Your task to perform on an android device: turn notification dots on Image 0: 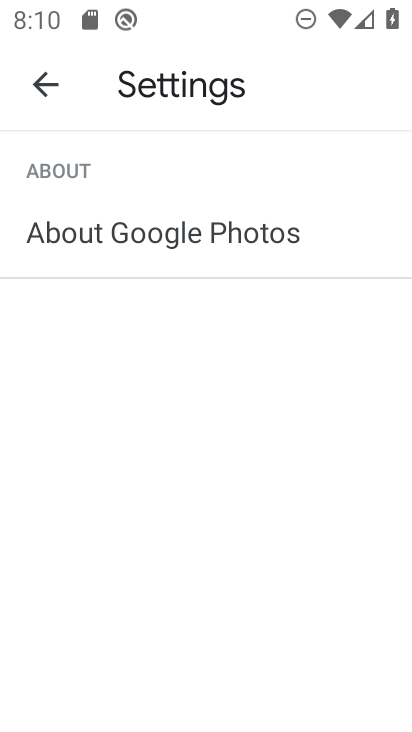
Step 0: press home button
Your task to perform on an android device: turn notification dots on Image 1: 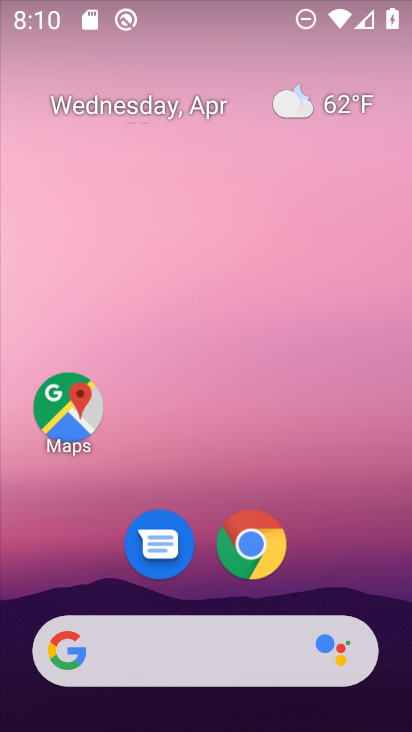
Step 1: drag from (192, 592) to (204, 237)
Your task to perform on an android device: turn notification dots on Image 2: 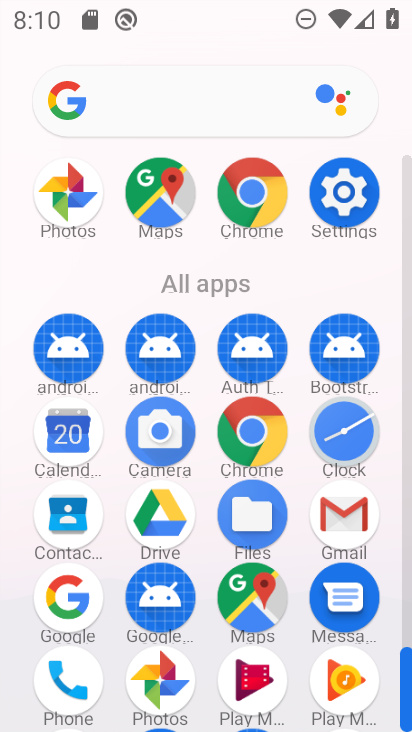
Step 2: click (334, 187)
Your task to perform on an android device: turn notification dots on Image 3: 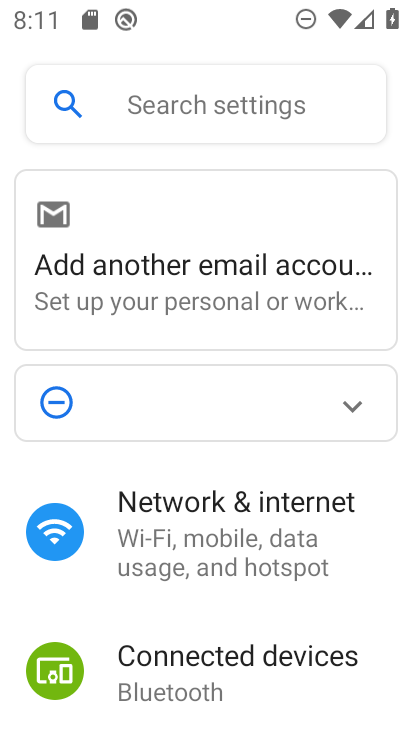
Step 3: drag from (220, 611) to (275, 232)
Your task to perform on an android device: turn notification dots on Image 4: 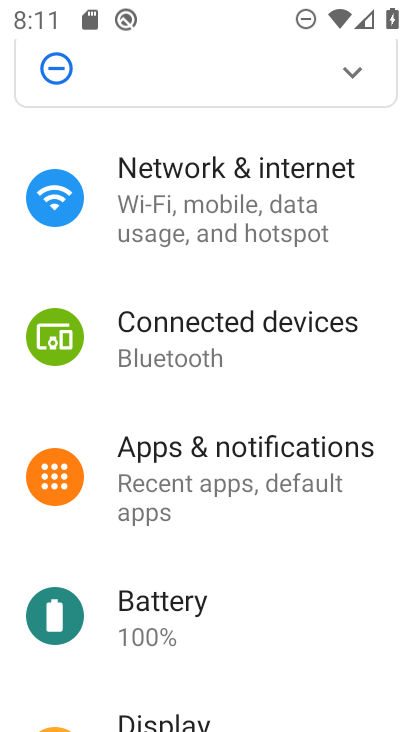
Step 4: click (232, 451)
Your task to perform on an android device: turn notification dots on Image 5: 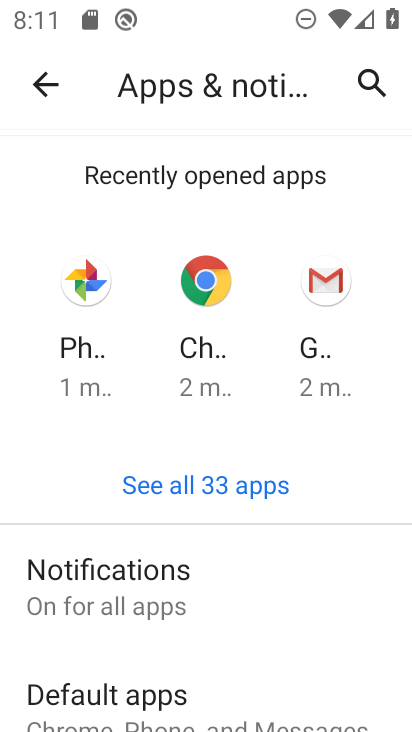
Step 5: drag from (232, 614) to (257, 360)
Your task to perform on an android device: turn notification dots on Image 6: 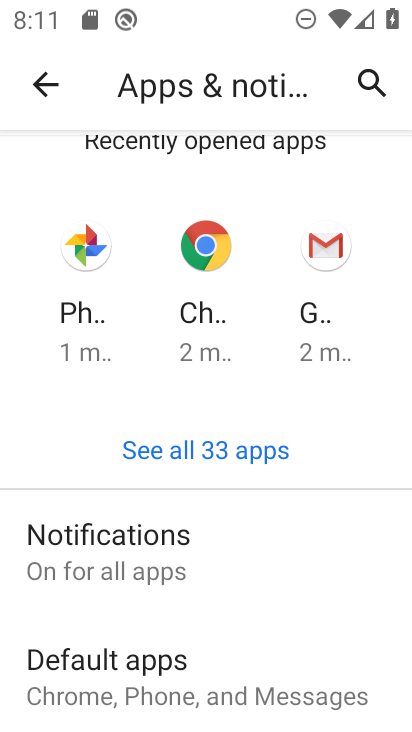
Step 6: drag from (235, 552) to (243, 340)
Your task to perform on an android device: turn notification dots on Image 7: 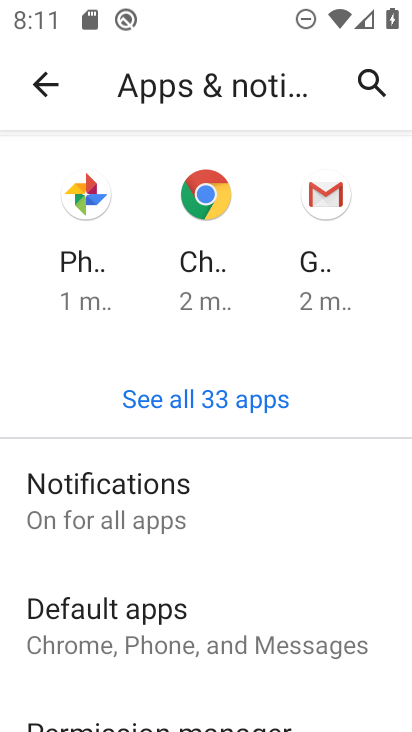
Step 7: click (175, 496)
Your task to perform on an android device: turn notification dots on Image 8: 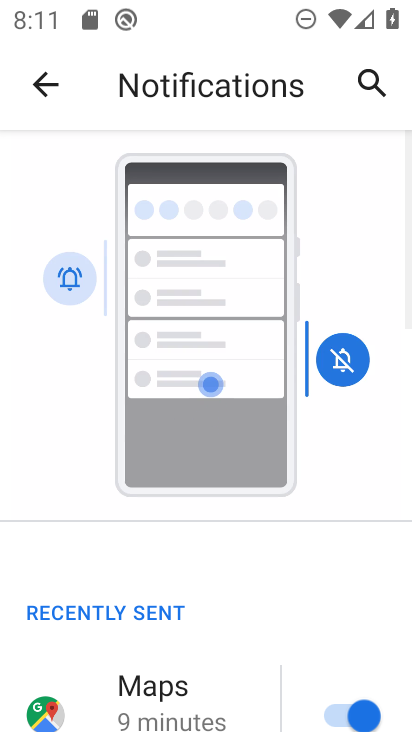
Step 8: drag from (210, 567) to (257, 221)
Your task to perform on an android device: turn notification dots on Image 9: 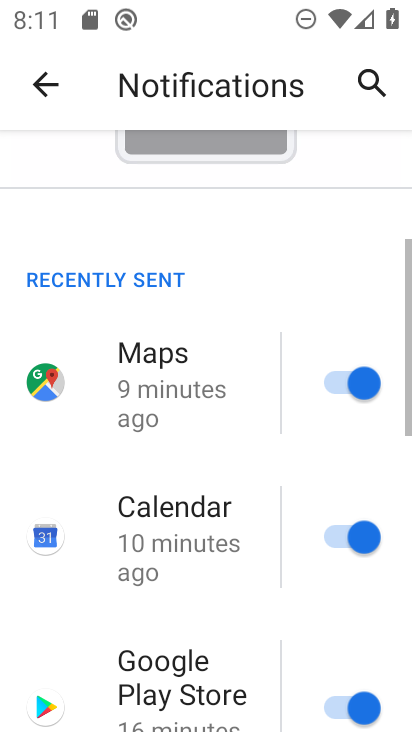
Step 9: drag from (246, 592) to (245, 211)
Your task to perform on an android device: turn notification dots on Image 10: 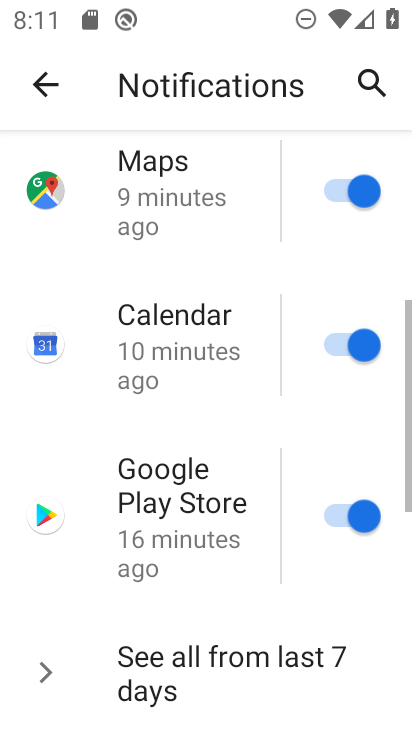
Step 10: drag from (226, 269) to (265, 213)
Your task to perform on an android device: turn notification dots on Image 11: 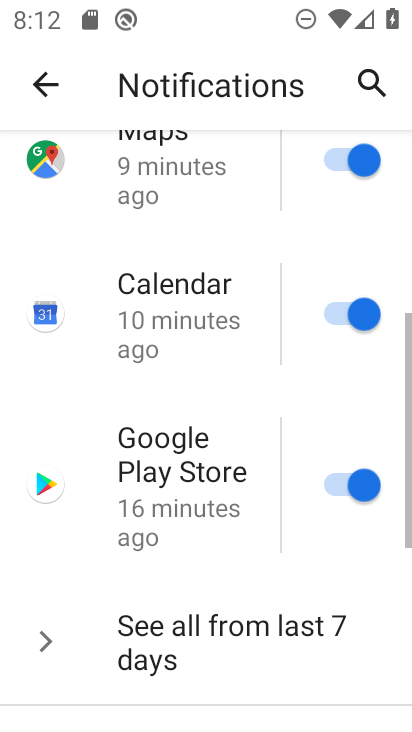
Step 11: drag from (265, 596) to (267, 190)
Your task to perform on an android device: turn notification dots on Image 12: 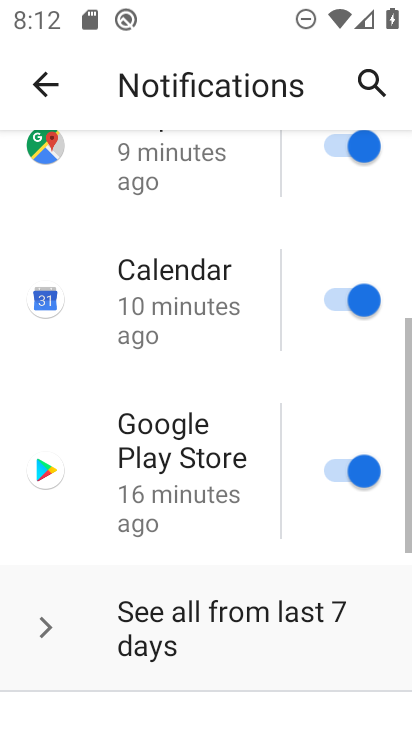
Step 12: drag from (267, 632) to (266, 287)
Your task to perform on an android device: turn notification dots on Image 13: 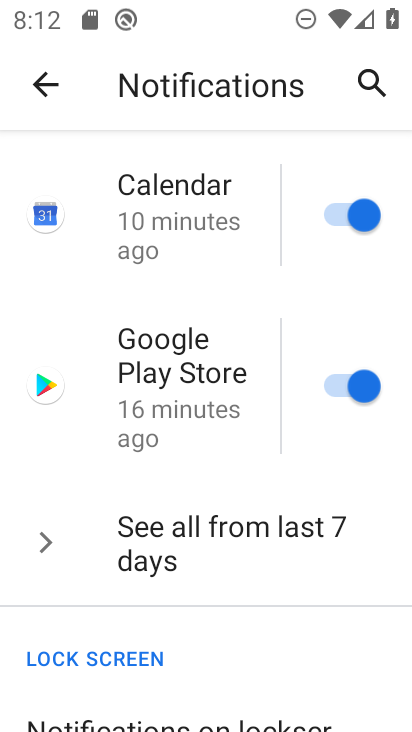
Step 13: drag from (263, 626) to (262, 181)
Your task to perform on an android device: turn notification dots on Image 14: 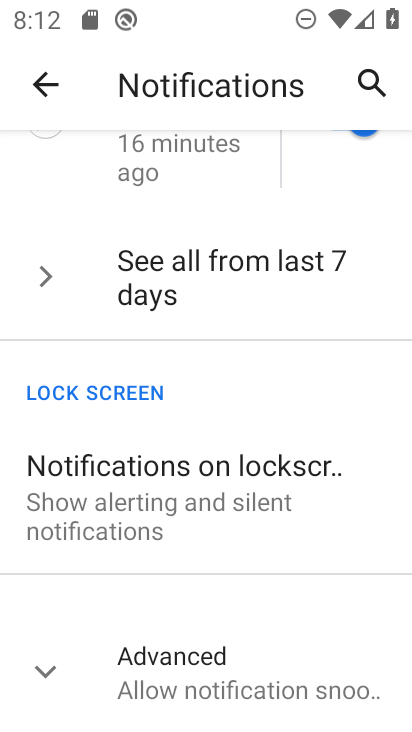
Step 14: drag from (235, 586) to (230, 360)
Your task to perform on an android device: turn notification dots on Image 15: 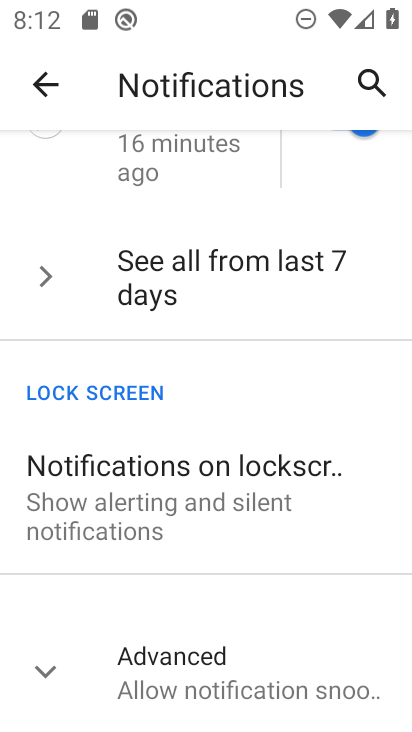
Step 15: click (210, 664)
Your task to perform on an android device: turn notification dots on Image 16: 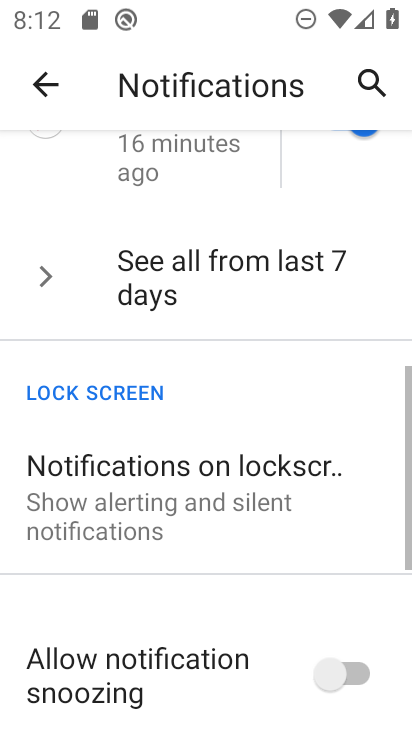
Step 16: task complete